Your task to perform on an android device: open app "Google Play Games" (install if not already installed) Image 0: 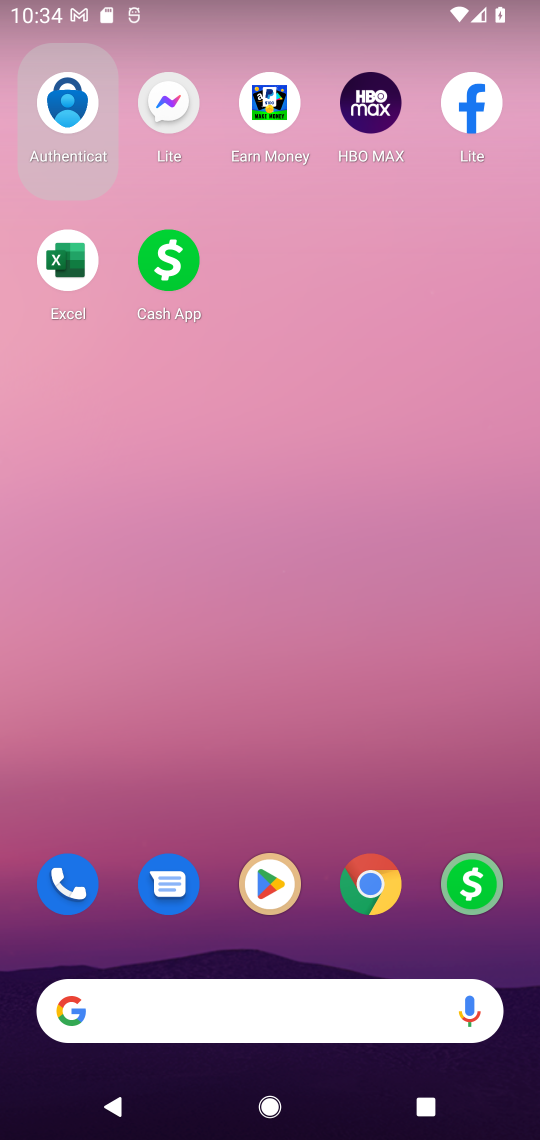
Step 0: drag from (260, 1020) to (324, 105)
Your task to perform on an android device: open app "Google Play Games" (install if not already installed) Image 1: 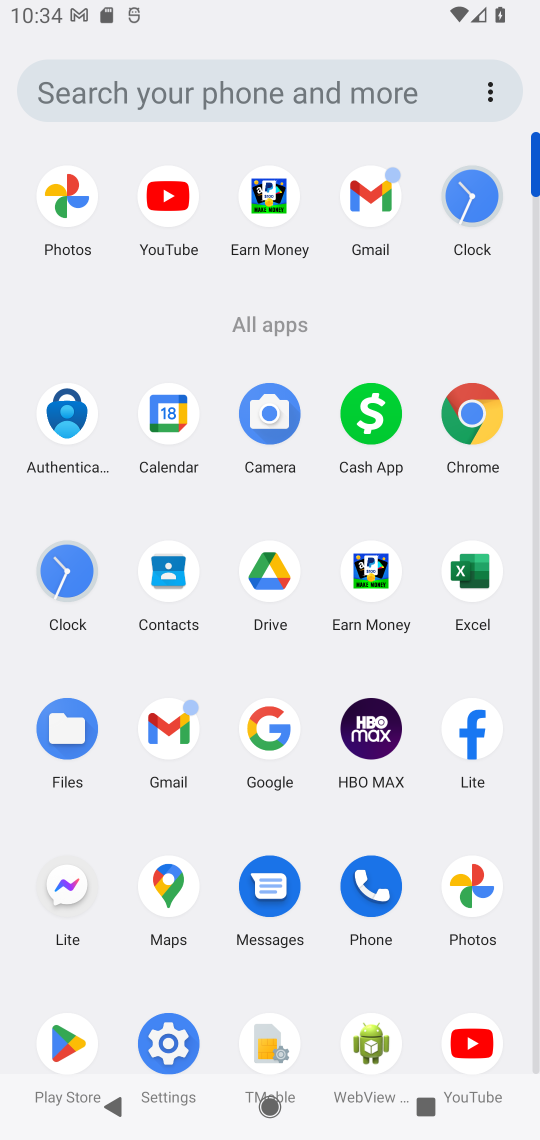
Step 1: click (68, 1040)
Your task to perform on an android device: open app "Google Play Games" (install if not already installed) Image 2: 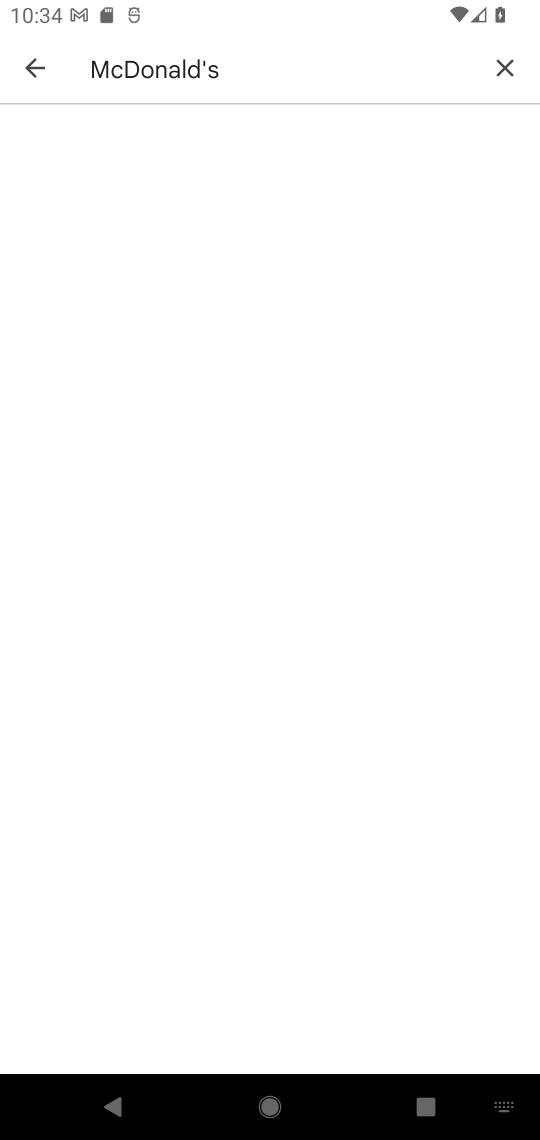
Step 2: press back button
Your task to perform on an android device: open app "Google Play Games" (install if not already installed) Image 3: 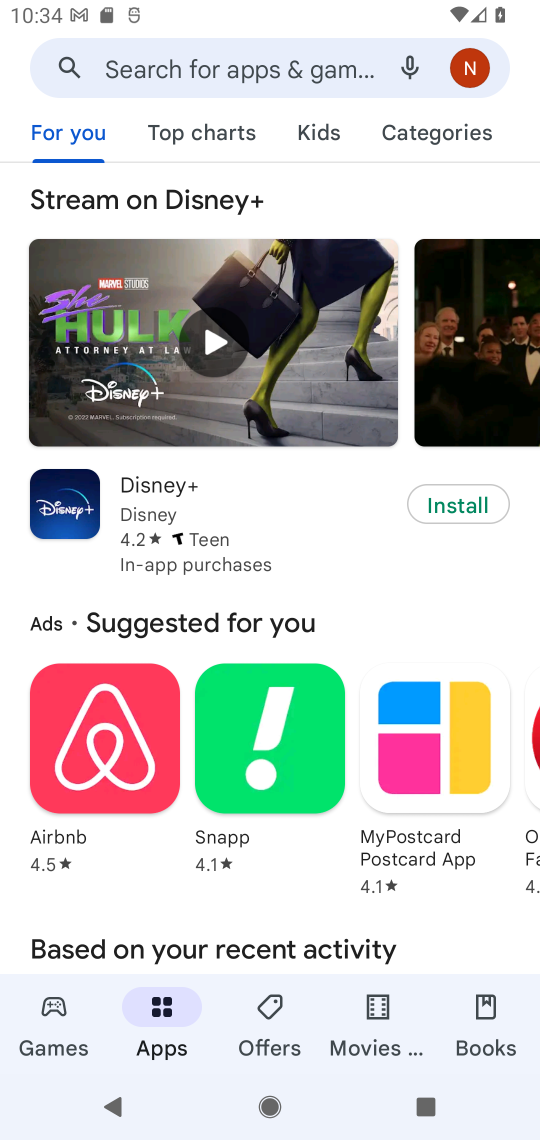
Step 3: click (310, 79)
Your task to perform on an android device: open app "Google Play Games" (install if not already installed) Image 4: 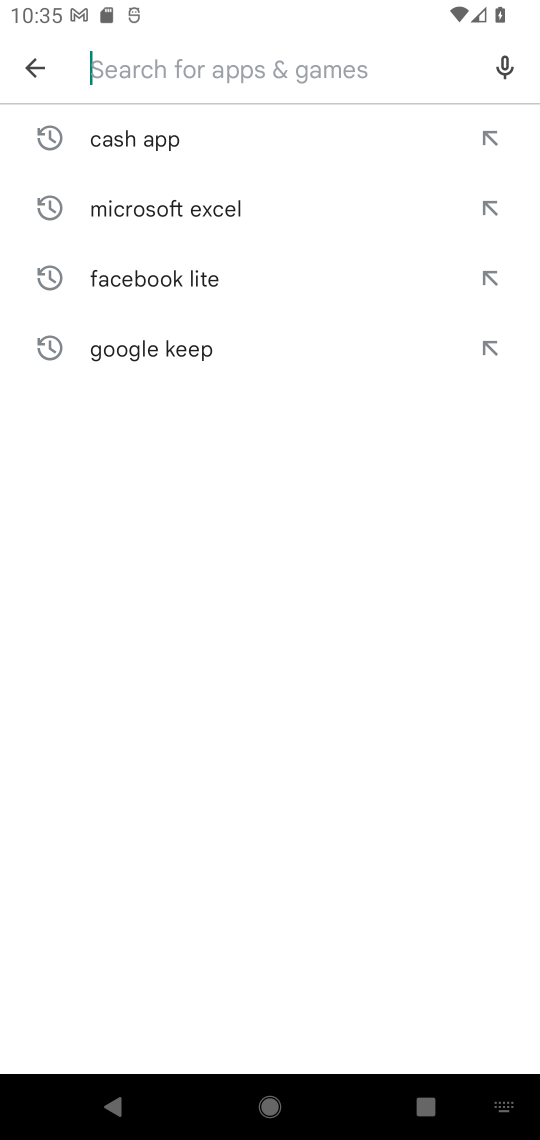
Step 4: type "Google Play Games"
Your task to perform on an android device: open app "Google Play Games" (install if not already installed) Image 5: 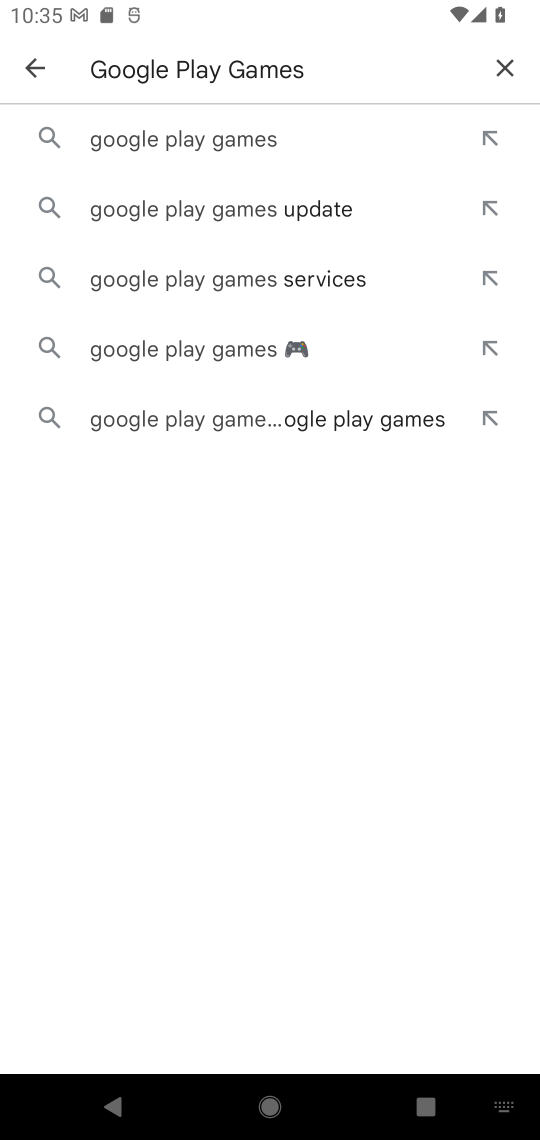
Step 5: click (267, 147)
Your task to perform on an android device: open app "Google Play Games" (install if not already installed) Image 6: 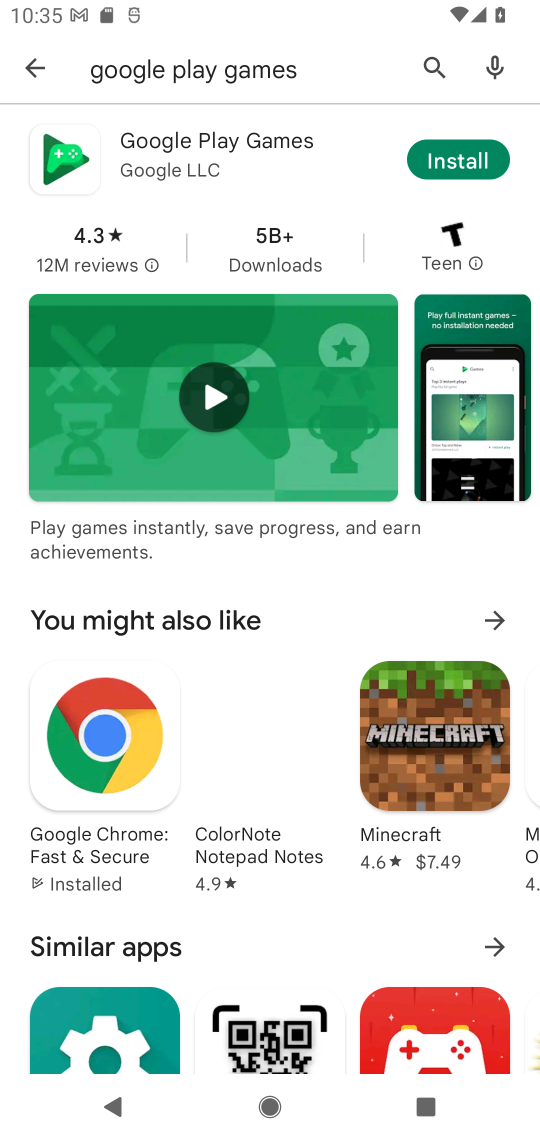
Step 6: click (469, 166)
Your task to perform on an android device: open app "Google Play Games" (install if not already installed) Image 7: 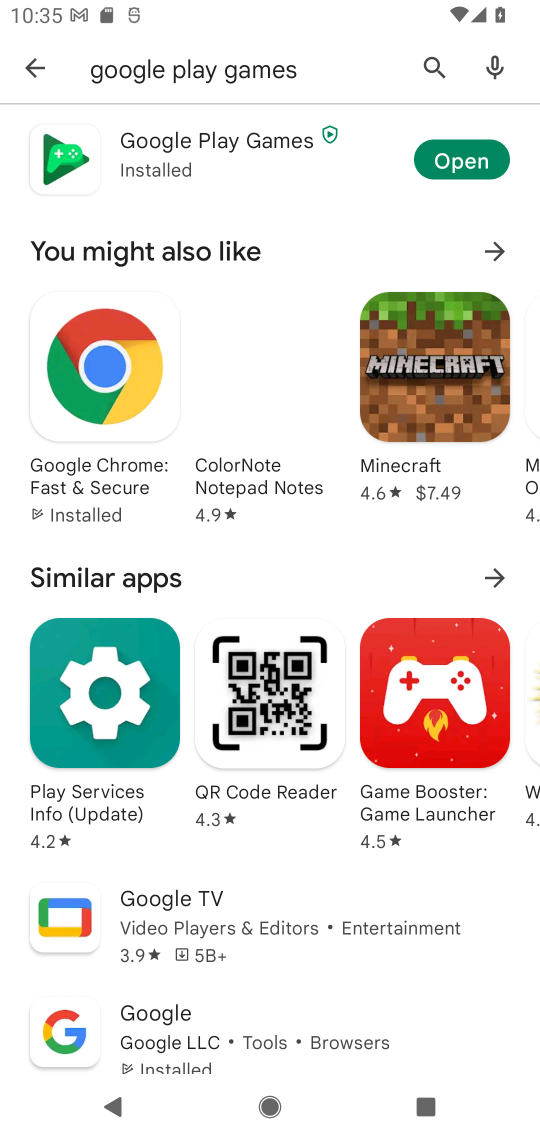
Step 7: click (469, 166)
Your task to perform on an android device: open app "Google Play Games" (install if not already installed) Image 8: 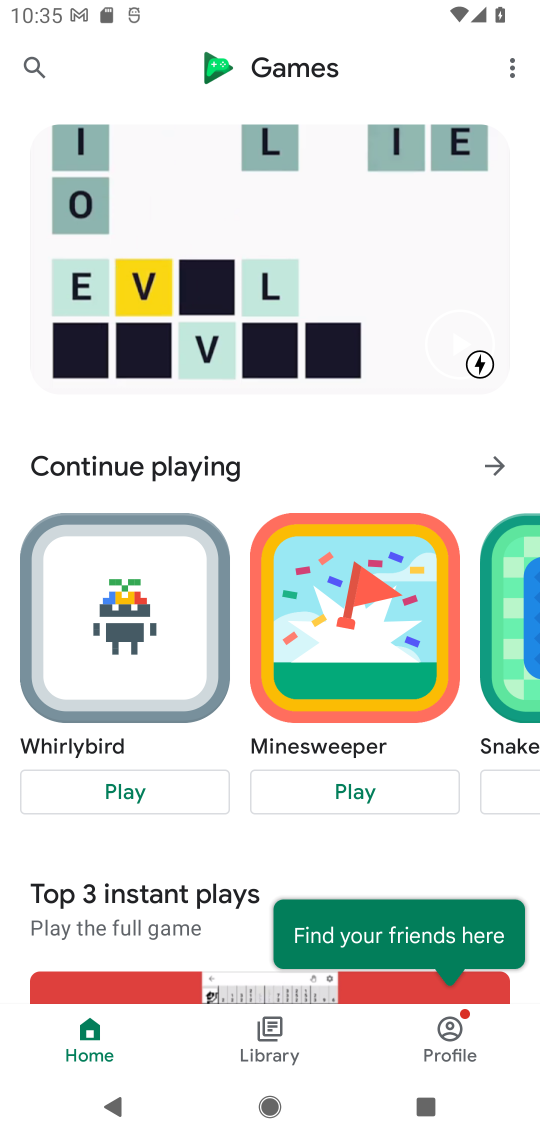
Step 8: task complete